Your task to perform on an android device: choose inbox layout in the gmail app Image 0: 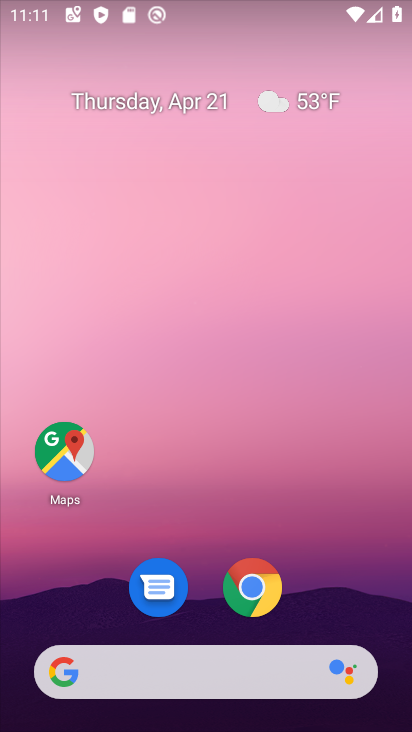
Step 0: drag from (239, 571) to (234, 67)
Your task to perform on an android device: choose inbox layout in the gmail app Image 1: 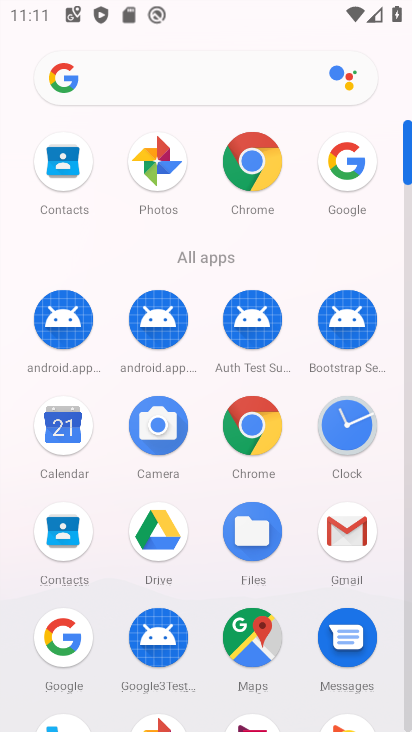
Step 1: click (352, 517)
Your task to perform on an android device: choose inbox layout in the gmail app Image 2: 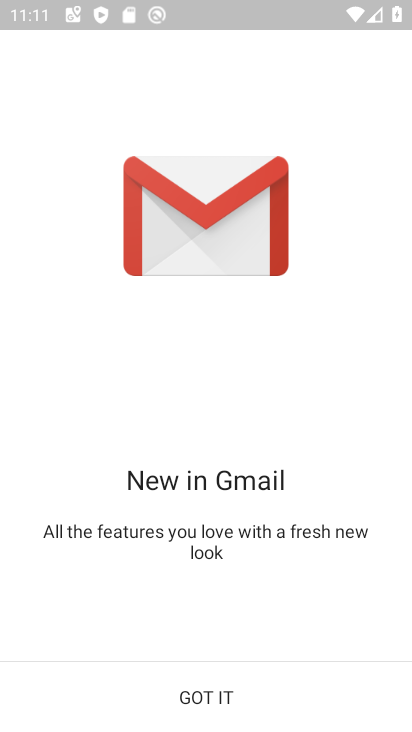
Step 2: click (219, 720)
Your task to perform on an android device: choose inbox layout in the gmail app Image 3: 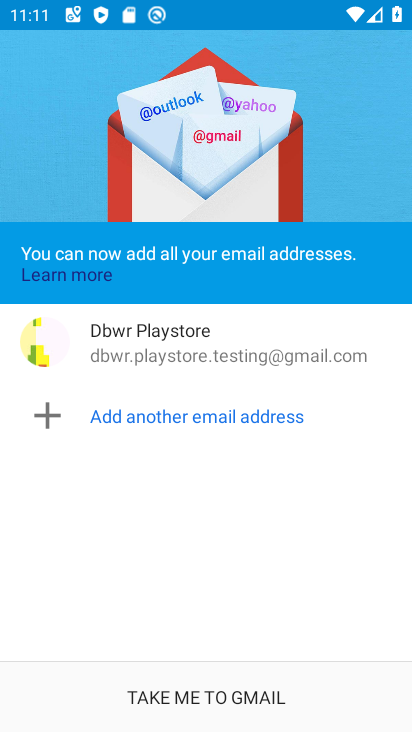
Step 3: click (207, 683)
Your task to perform on an android device: choose inbox layout in the gmail app Image 4: 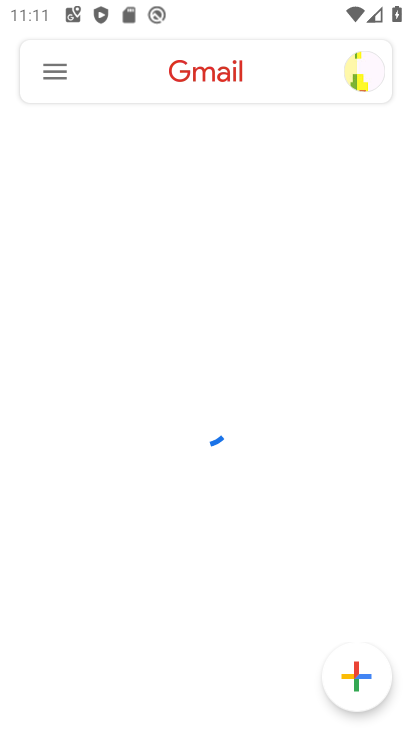
Step 4: click (56, 60)
Your task to perform on an android device: choose inbox layout in the gmail app Image 5: 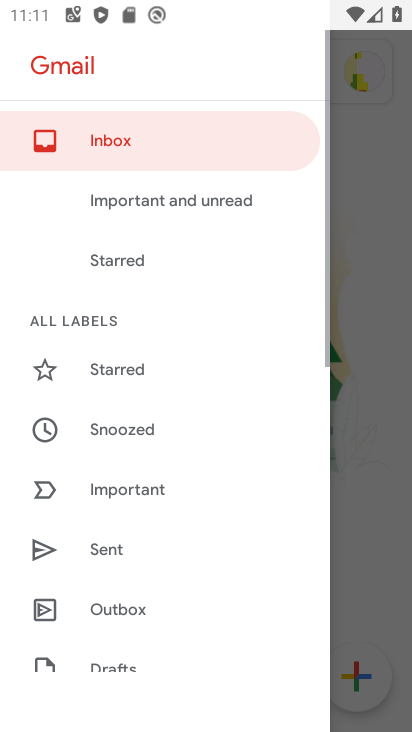
Step 5: drag from (159, 650) to (254, 50)
Your task to perform on an android device: choose inbox layout in the gmail app Image 6: 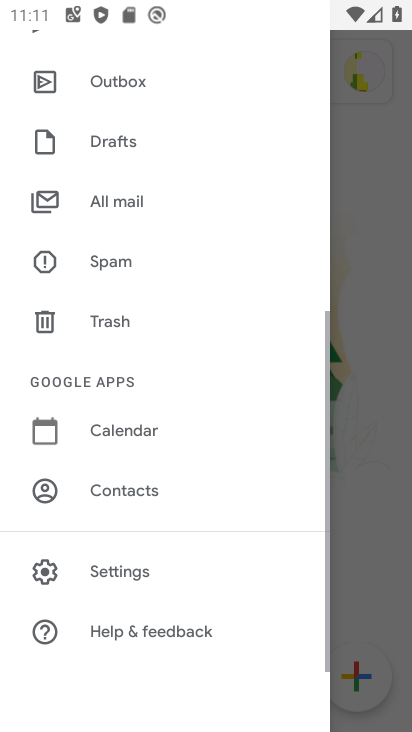
Step 6: click (137, 565)
Your task to perform on an android device: choose inbox layout in the gmail app Image 7: 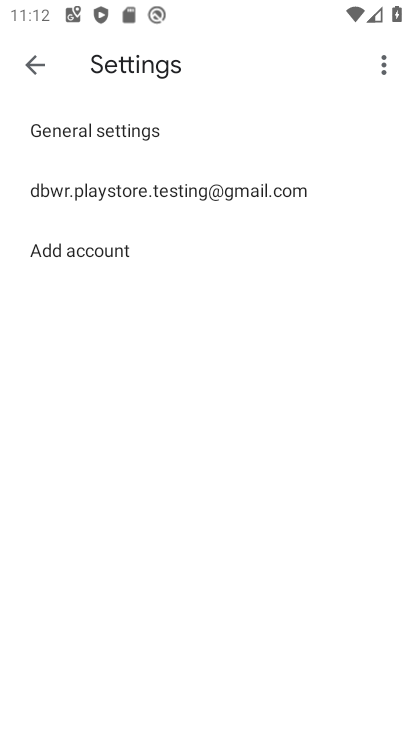
Step 7: click (136, 194)
Your task to perform on an android device: choose inbox layout in the gmail app Image 8: 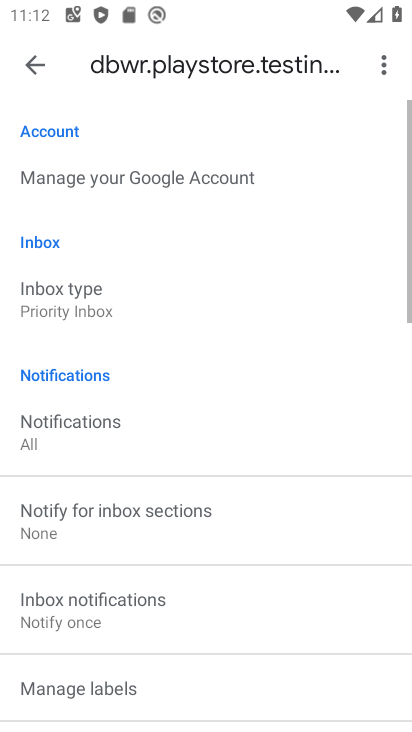
Step 8: click (67, 294)
Your task to perform on an android device: choose inbox layout in the gmail app Image 9: 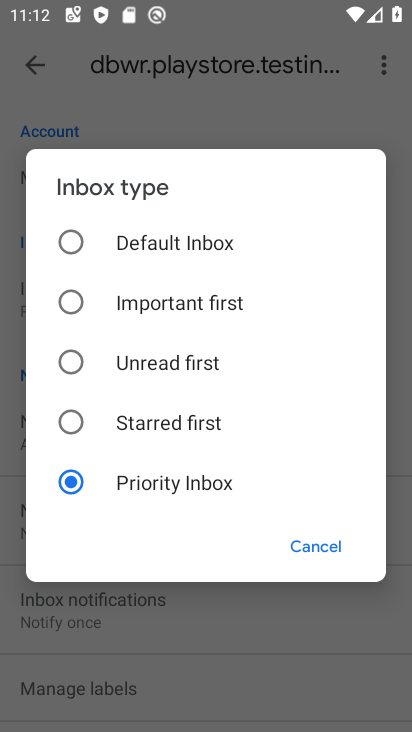
Step 9: click (69, 238)
Your task to perform on an android device: choose inbox layout in the gmail app Image 10: 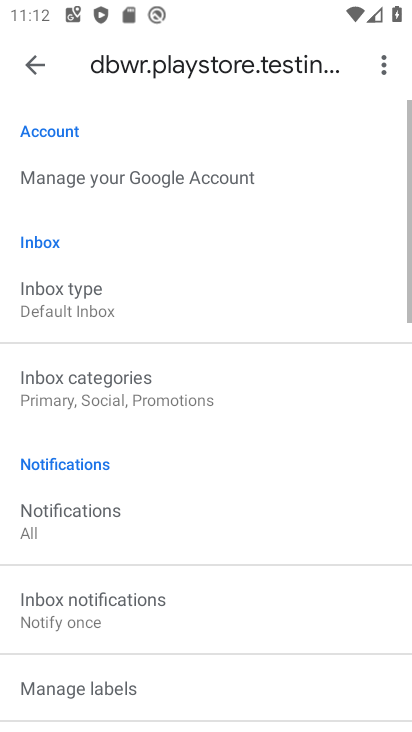
Step 10: task complete